Your task to perform on an android device: set the timer Image 0: 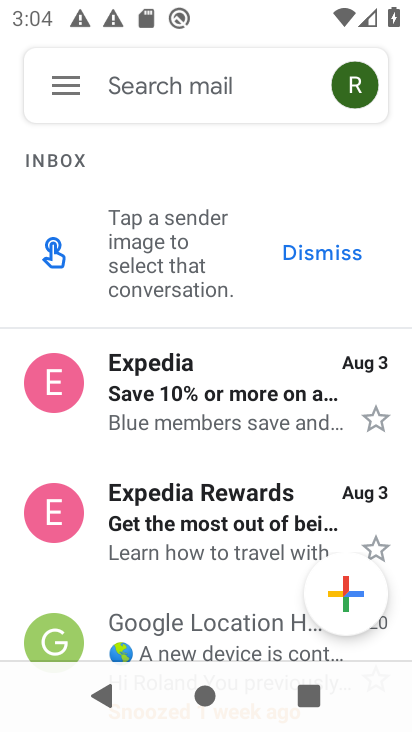
Step 0: press home button
Your task to perform on an android device: set the timer Image 1: 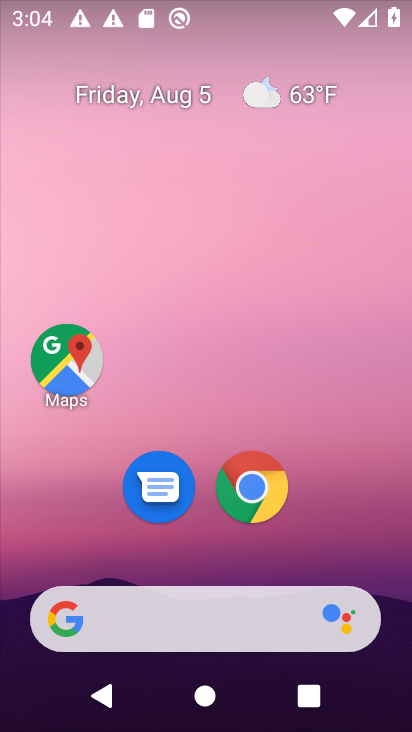
Step 1: drag from (215, 579) to (242, 78)
Your task to perform on an android device: set the timer Image 2: 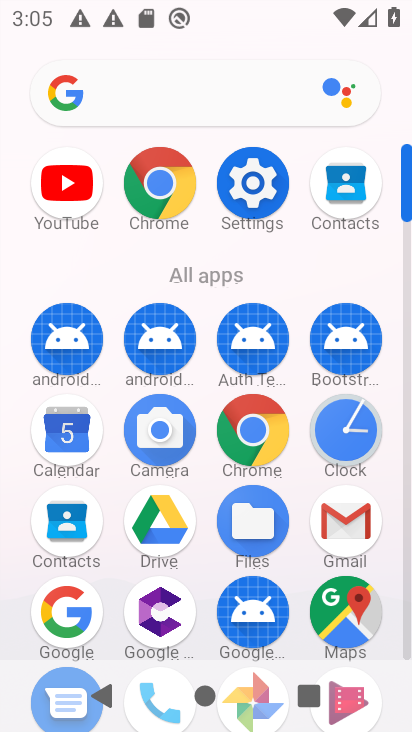
Step 2: click (352, 419)
Your task to perform on an android device: set the timer Image 3: 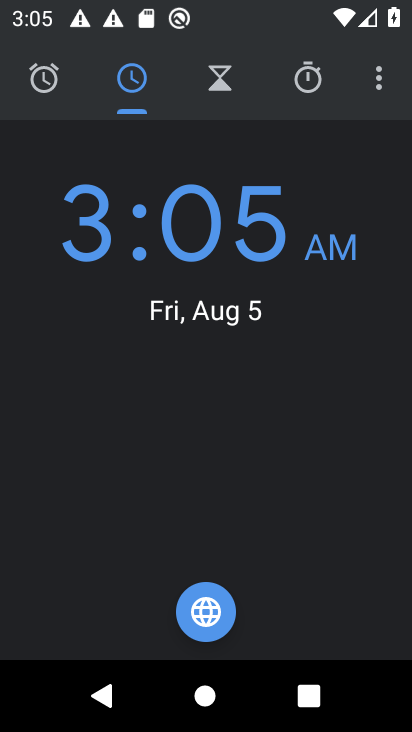
Step 3: click (225, 73)
Your task to perform on an android device: set the timer Image 4: 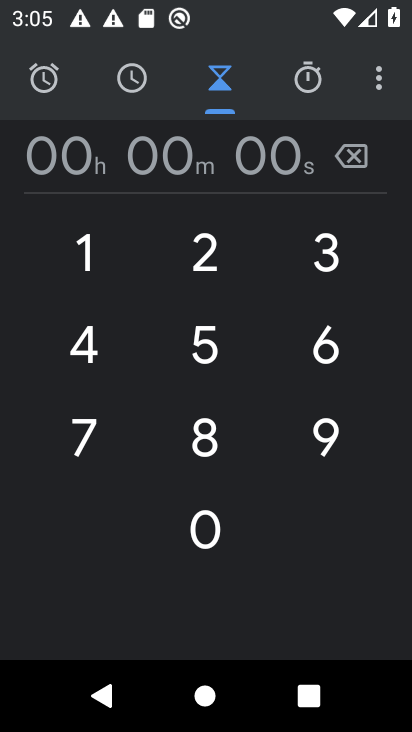
Step 4: click (220, 143)
Your task to perform on an android device: set the timer Image 5: 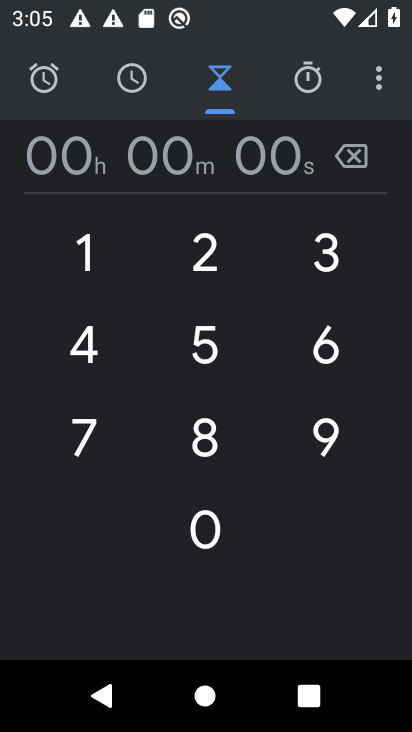
Step 5: type "878787877878 "
Your task to perform on an android device: set the timer Image 6: 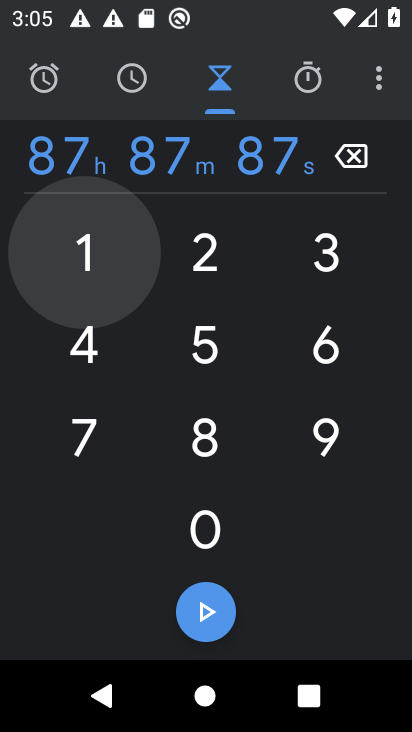
Step 6: click (222, 623)
Your task to perform on an android device: set the timer Image 7: 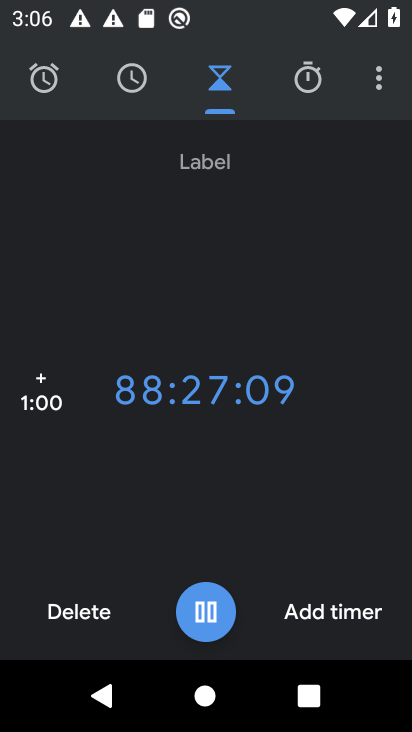
Step 7: task complete